Your task to perform on an android device: What is the news today? Image 0: 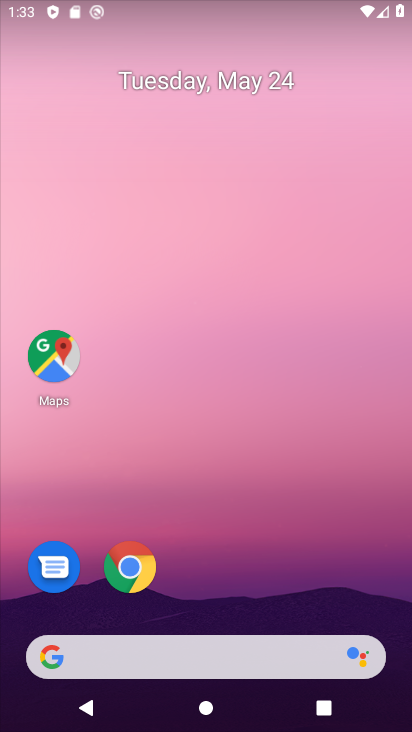
Step 0: drag from (215, 600) to (238, 361)
Your task to perform on an android device: What is the news today? Image 1: 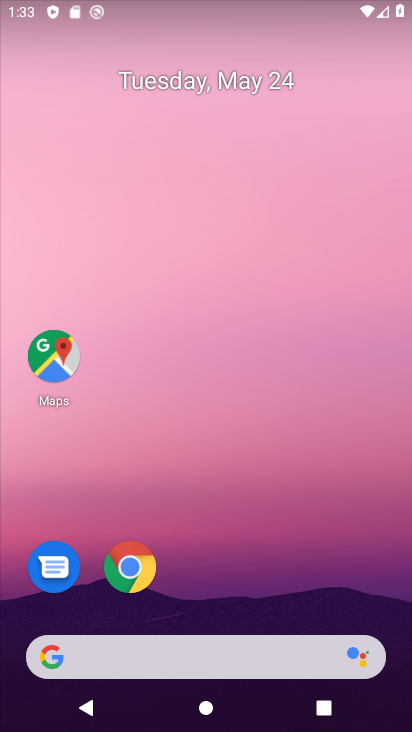
Step 1: click (223, 666)
Your task to perform on an android device: What is the news today? Image 2: 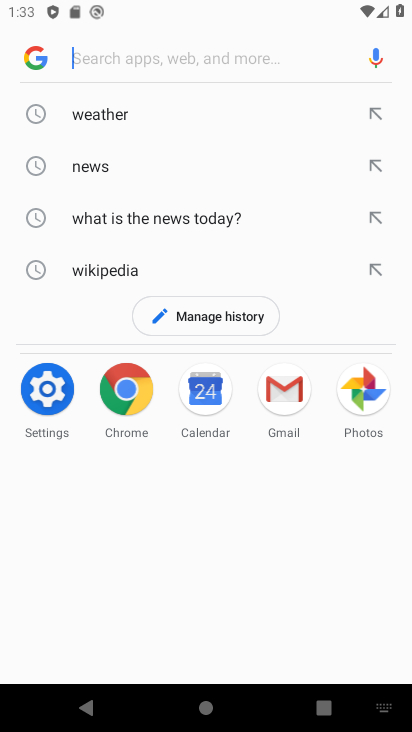
Step 2: type "news today"
Your task to perform on an android device: What is the news today? Image 3: 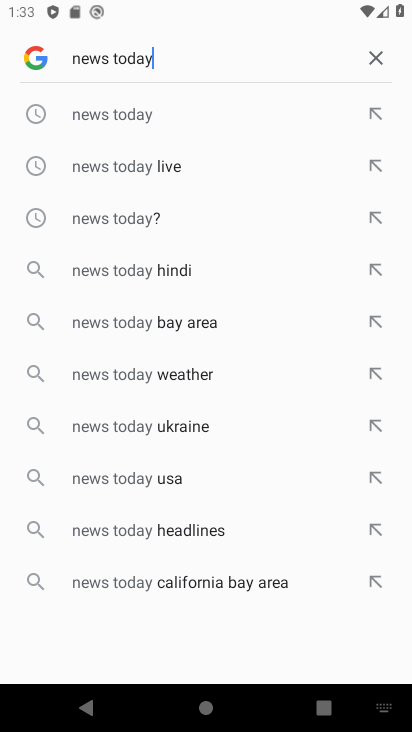
Step 3: click (134, 219)
Your task to perform on an android device: What is the news today? Image 4: 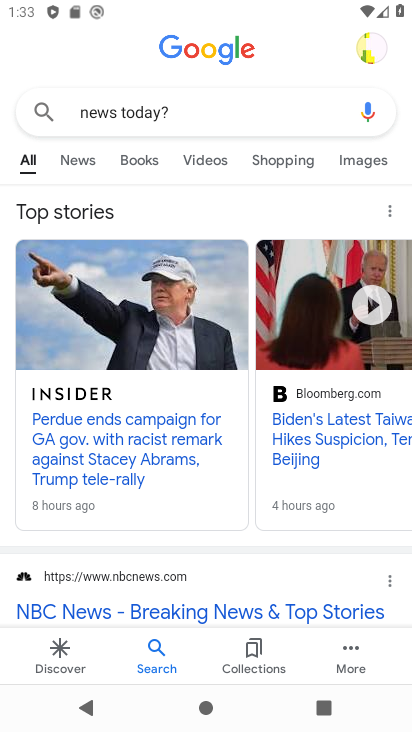
Step 4: task complete